Your task to perform on an android device: turn off picture-in-picture Image 0: 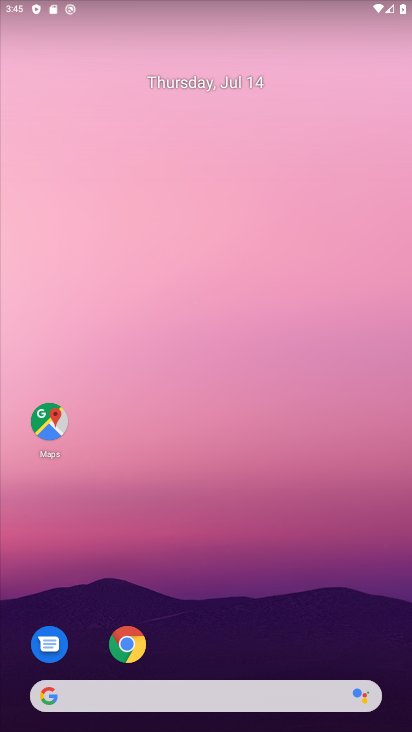
Step 0: press home button
Your task to perform on an android device: turn off picture-in-picture Image 1: 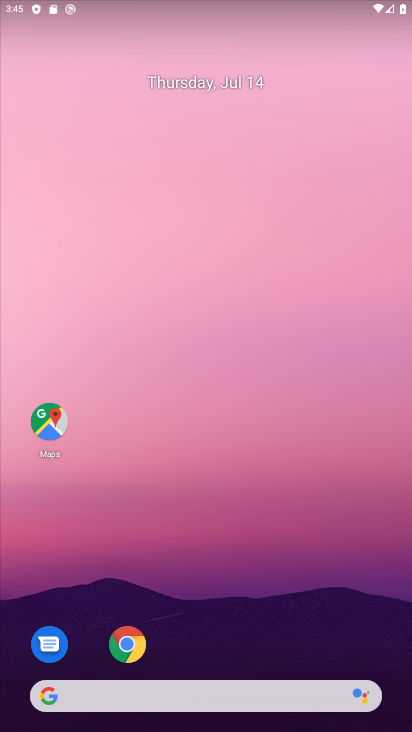
Step 1: drag from (364, 655) to (346, 408)
Your task to perform on an android device: turn off picture-in-picture Image 2: 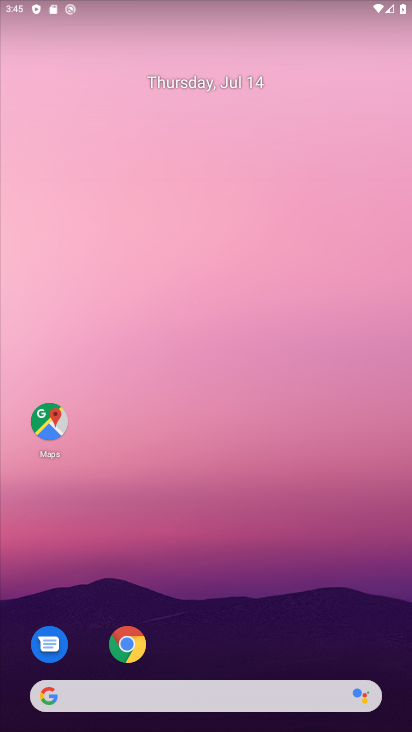
Step 2: drag from (346, 419) to (352, 139)
Your task to perform on an android device: turn off picture-in-picture Image 3: 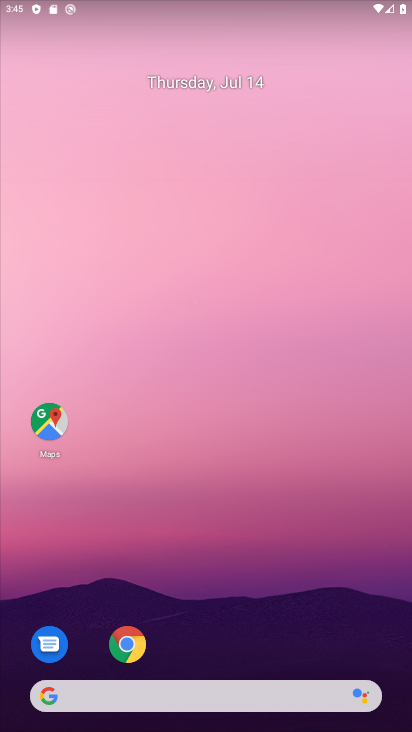
Step 3: drag from (296, 614) to (303, 240)
Your task to perform on an android device: turn off picture-in-picture Image 4: 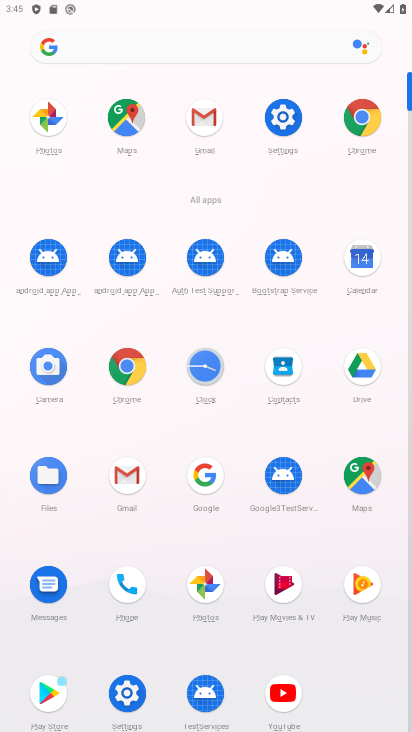
Step 4: click (350, 126)
Your task to perform on an android device: turn off picture-in-picture Image 5: 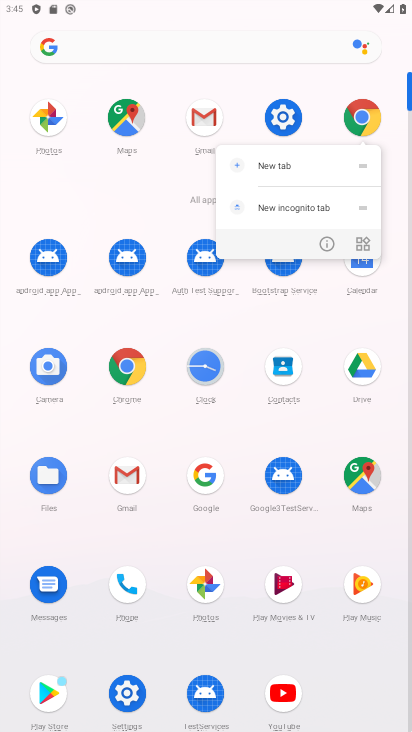
Step 5: click (331, 245)
Your task to perform on an android device: turn off picture-in-picture Image 6: 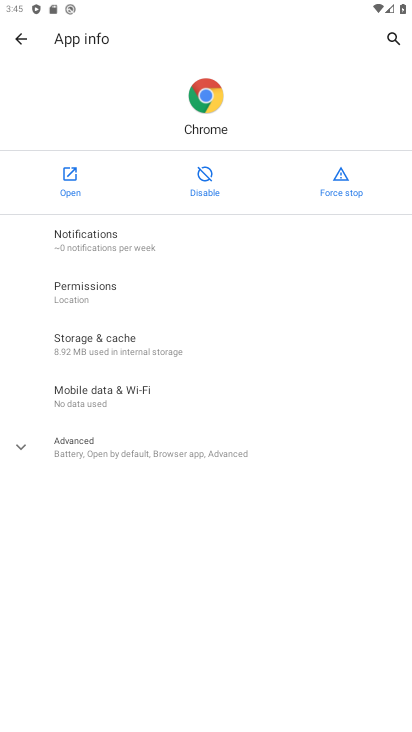
Step 6: click (52, 451)
Your task to perform on an android device: turn off picture-in-picture Image 7: 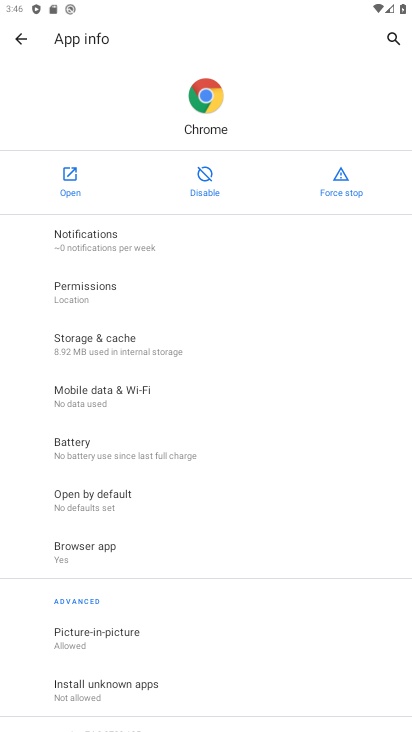
Step 7: click (97, 637)
Your task to perform on an android device: turn off picture-in-picture Image 8: 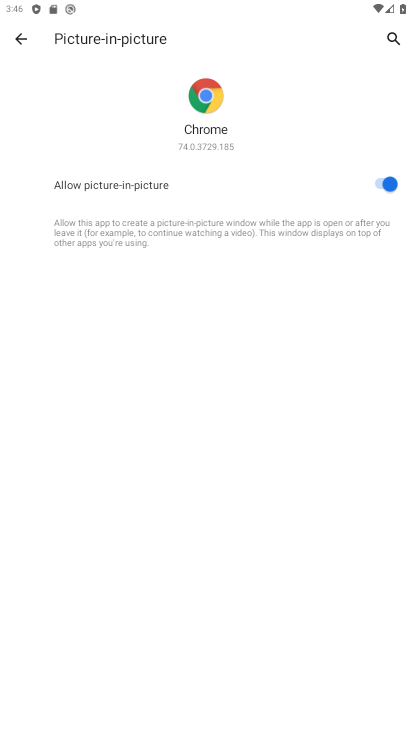
Step 8: click (231, 185)
Your task to perform on an android device: turn off picture-in-picture Image 9: 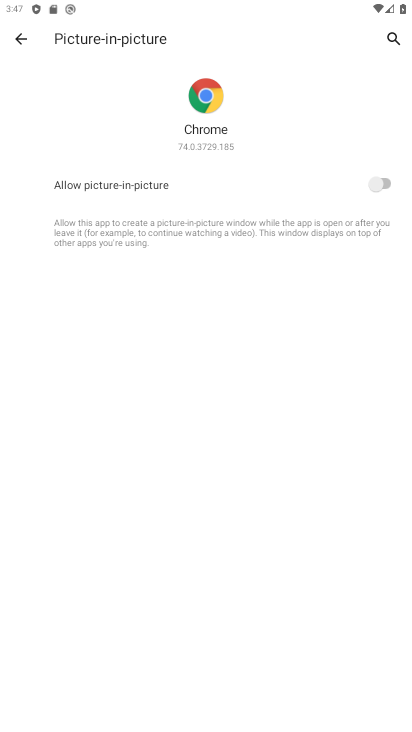
Step 9: task complete